Your task to perform on an android device: find snoozed emails in the gmail app Image 0: 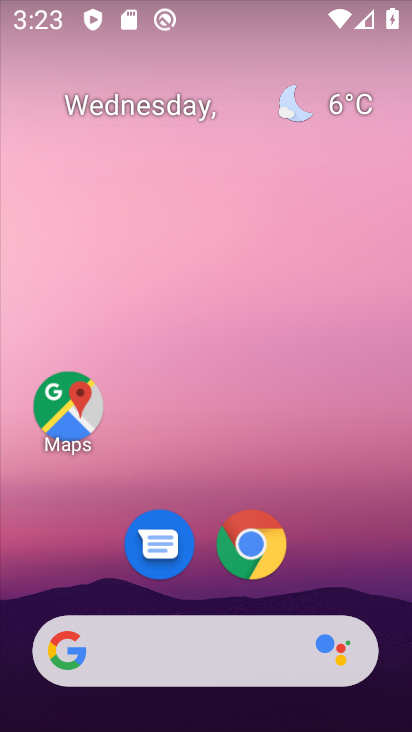
Step 0: drag from (182, 498) to (273, 136)
Your task to perform on an android device: find snoozed emails in the gmail app Image 1: 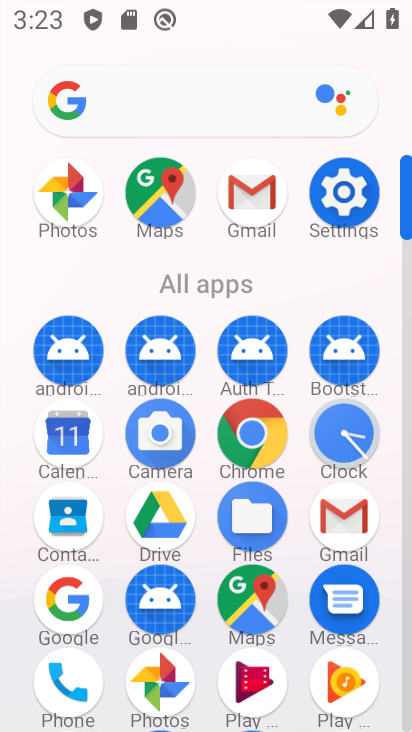
Step 1: click (347, 534)
Your task to perform on an android device: find snoozed emails in the gmail app Image 2: 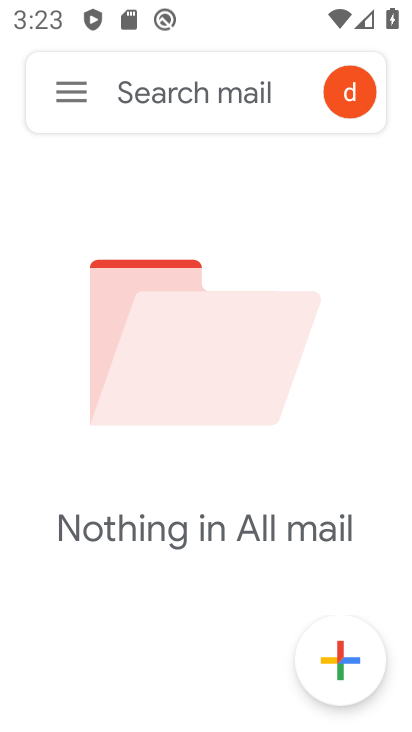
Step 2: click (84, 101)
Your task to perform on an android device: find snoozed emails in the gmail app Image 3: 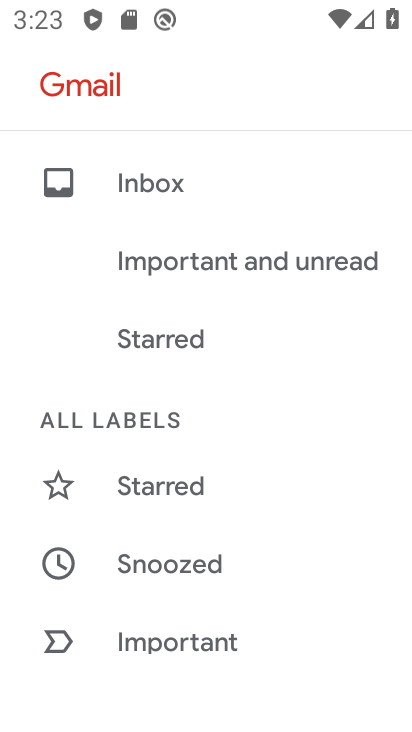
Step 3: click (234, 572)
Your task to perform on an android device: find snoozed emails in the gmail app Image 4: 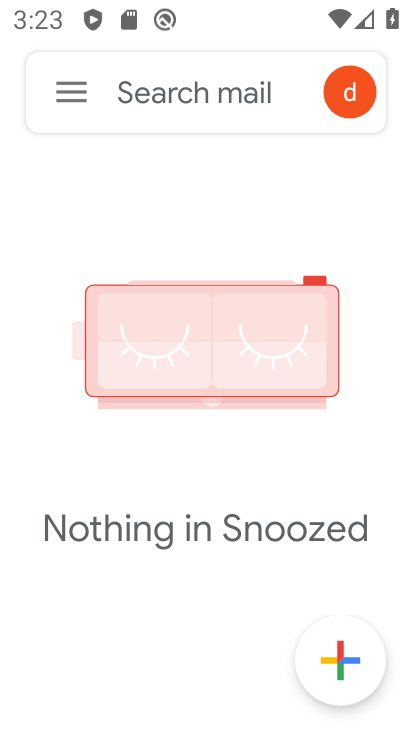
Step 4: task complete